Your task to perform on an android device: Go to Reddit.com Image 0: 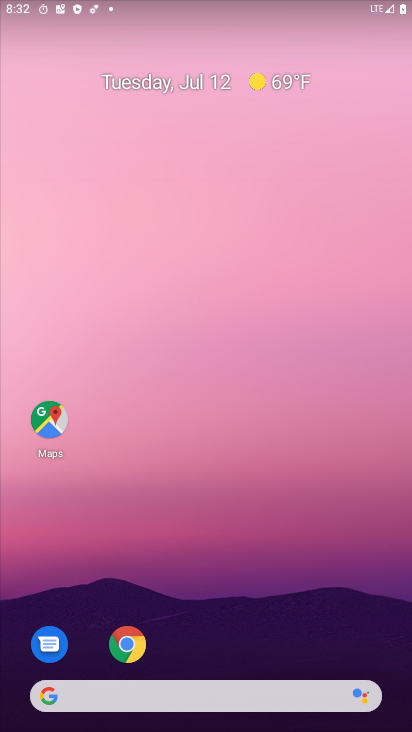
Step 0: click (128, 638)
Your task to perform on an android device: Go to Reddit.com Image 1: 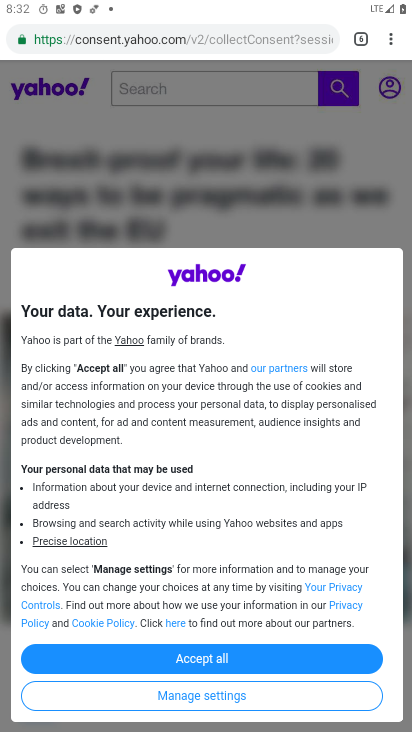
Step 1: click (358, 36)
Your task to perform on an android device: Go to Reddit.com Image 2: 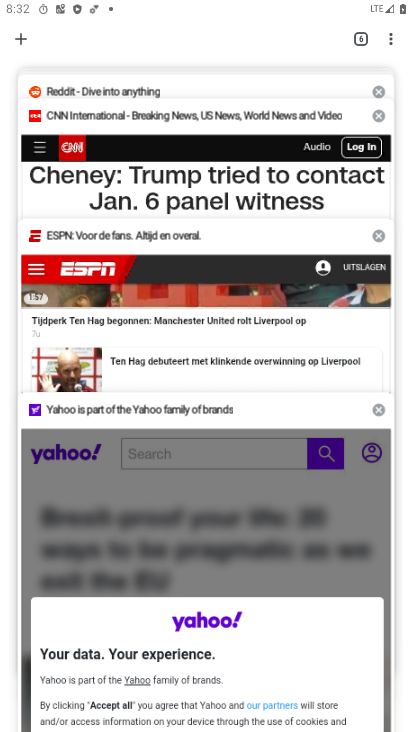
Step 2: click (110, 88)
Your task to perform on an android device: Go to Reddit.com Image 3: 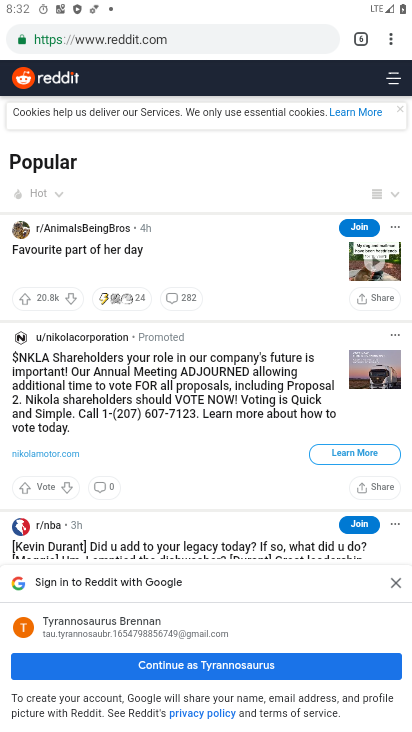
Step 3: click (397, 581)
Your task to perform on an android device: Go to Reddit.com Image 4: 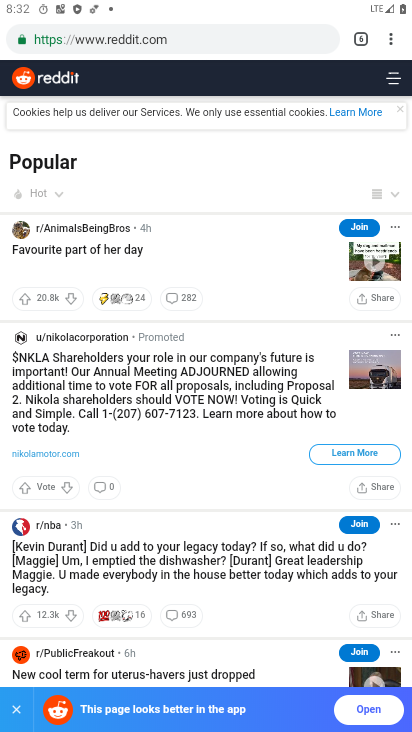
Step 4: task complete